Your task to perform on an android device: turn smart compose on in the gmail app Image 0: 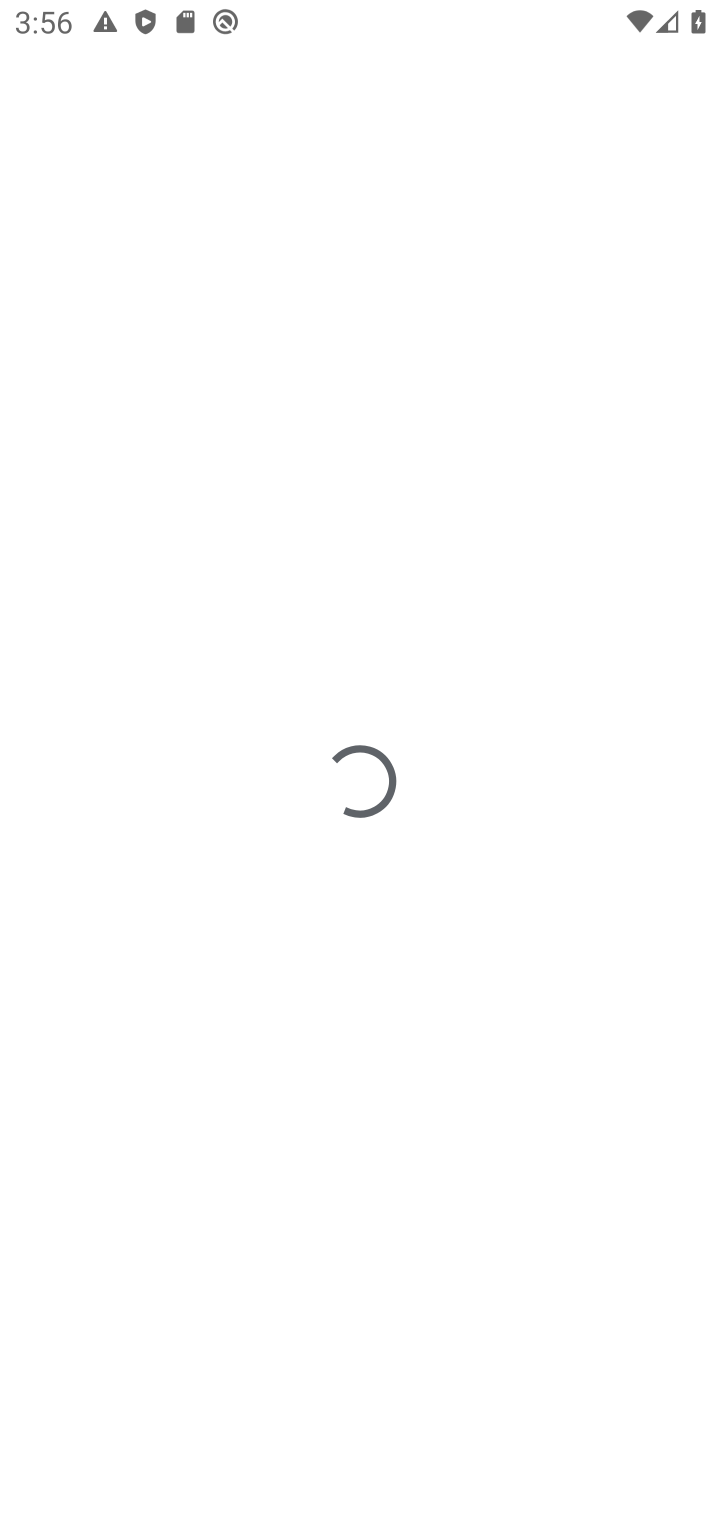
Step 0: press home button
Your task to perform on an android device: turn smart compose on in the gmail app Image 1: 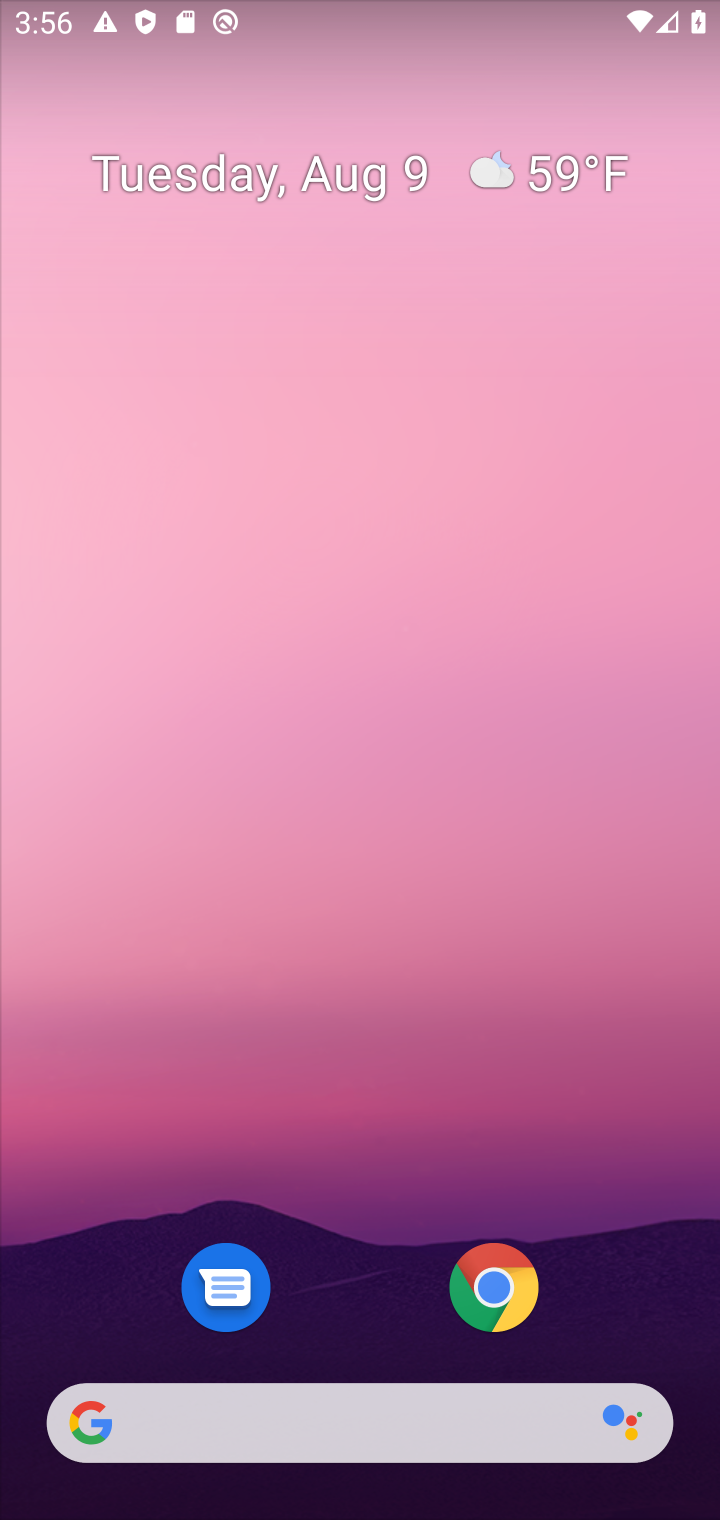
Step 1: drag from (344, 1101) to (501, 235)
Your task to perform on an android device: turn smart compose on in the gmail app Image 2: 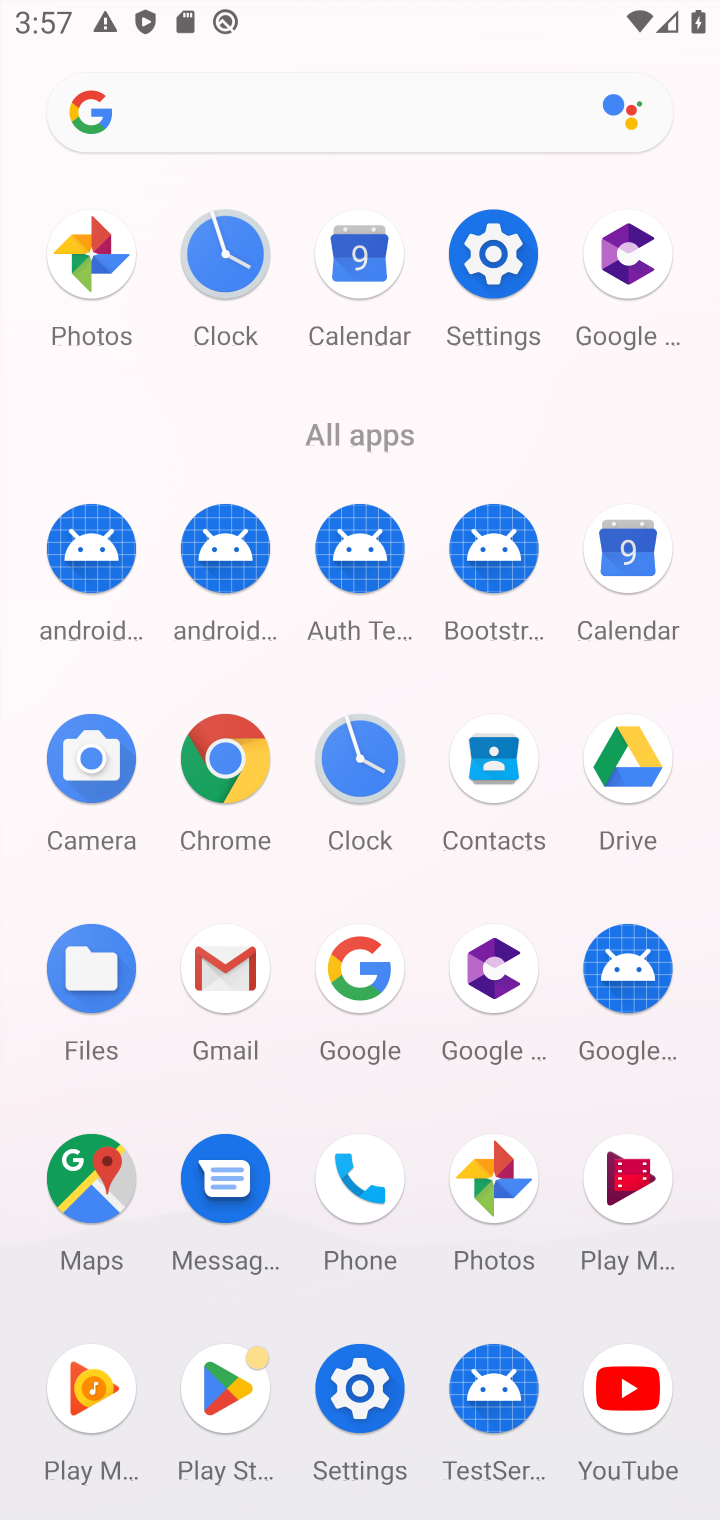
Step 2: click (485, 287)
Your task to perform on an android device: turn smart compose on in the gmail app Image 3: 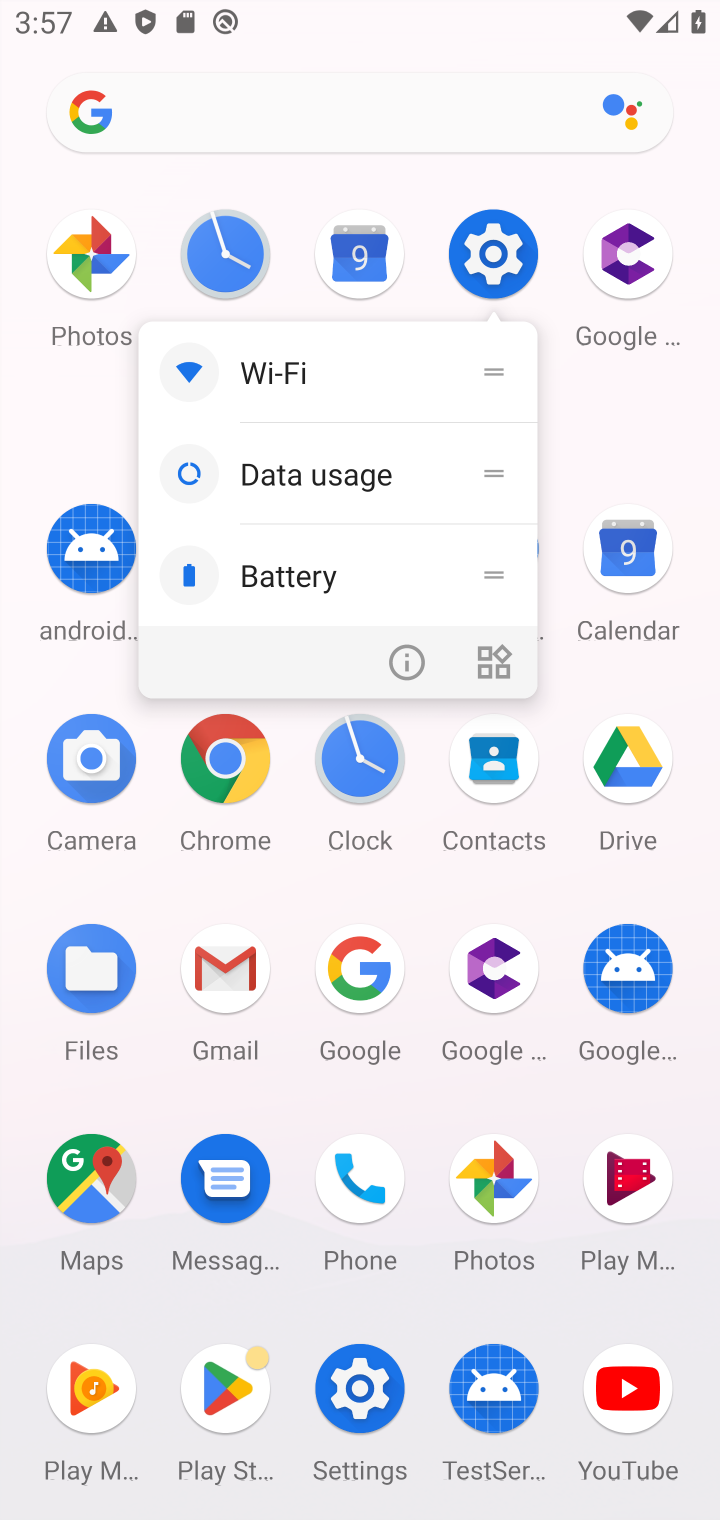
Step 3: click (241, 967)
Your task to perform on an android device: turn smart compose on in the gmail app Image 4: 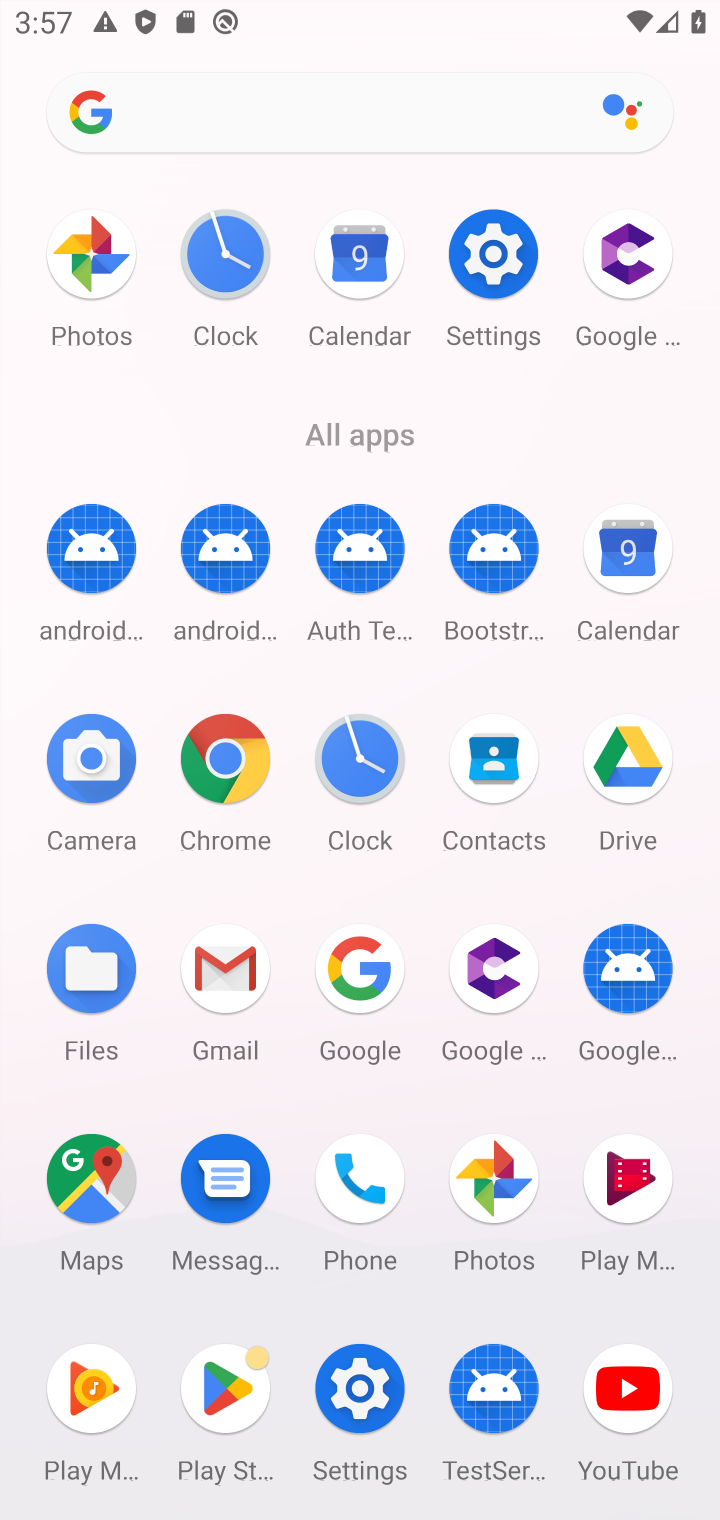
Step 4: click (222, 993)
Your task to perform on an android device: turn smart compose on in the gmail app Image 5: 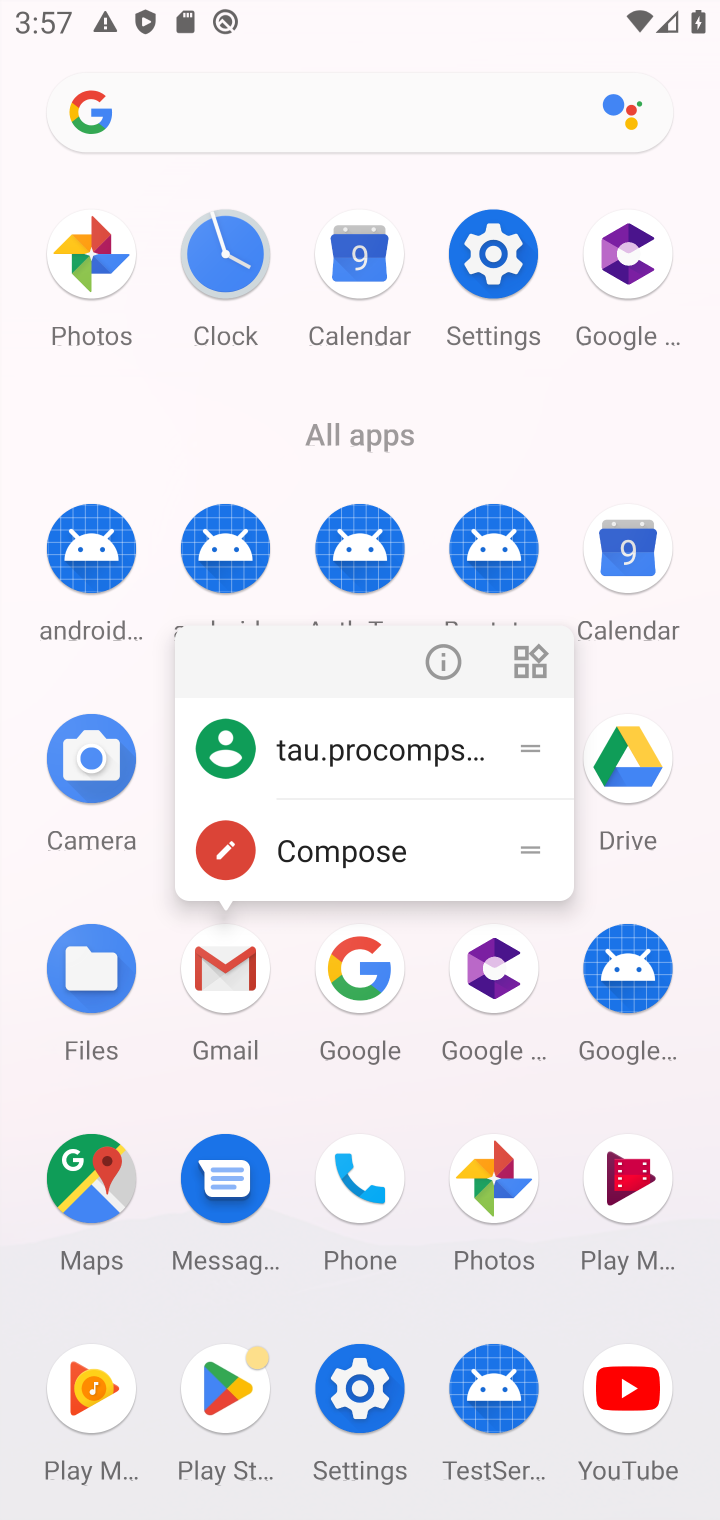
Step 5: click (321, 751)
Your task to perform on an android device: turn smart compose on in the gmail app Image 6: 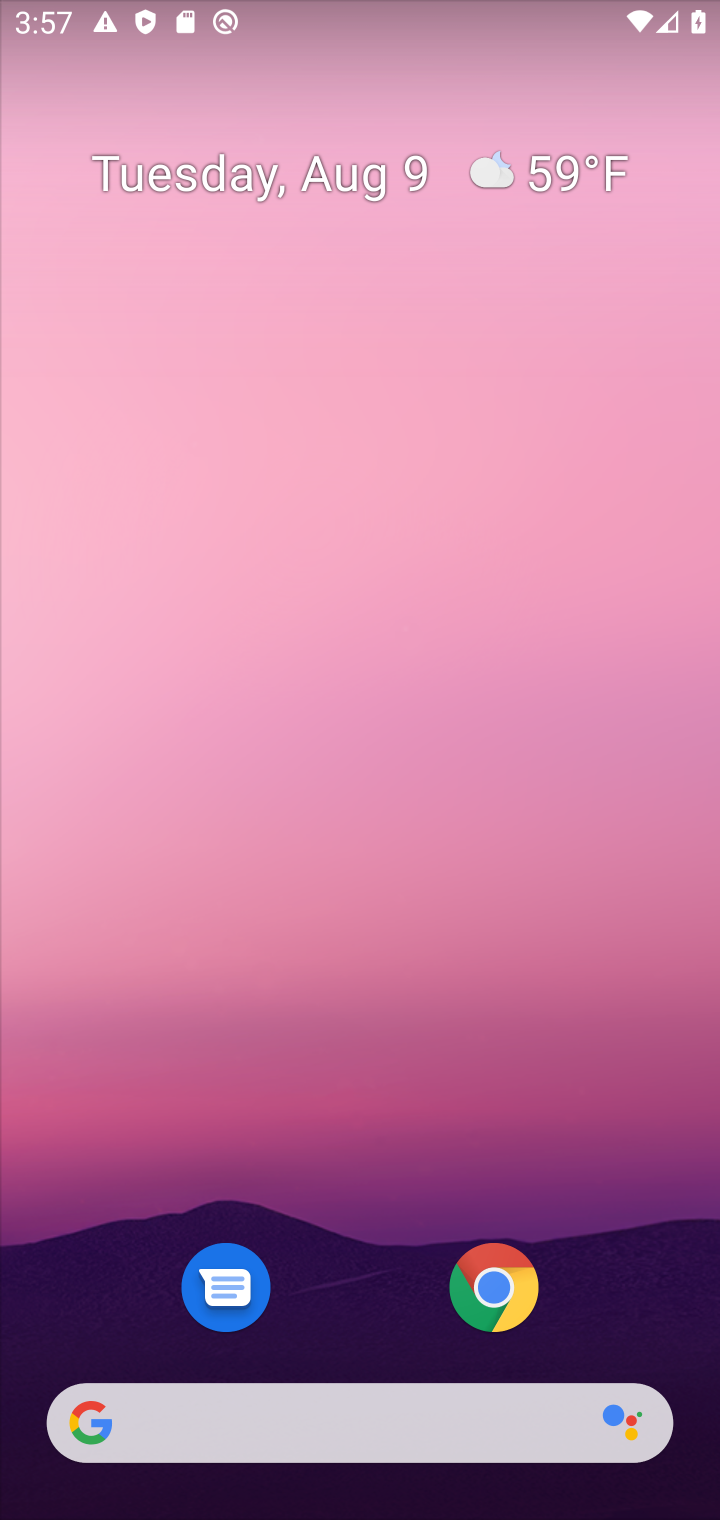
Step 6: task complete